Your task to perform on an android device: turn smart compose on in the gmail app Image 0: 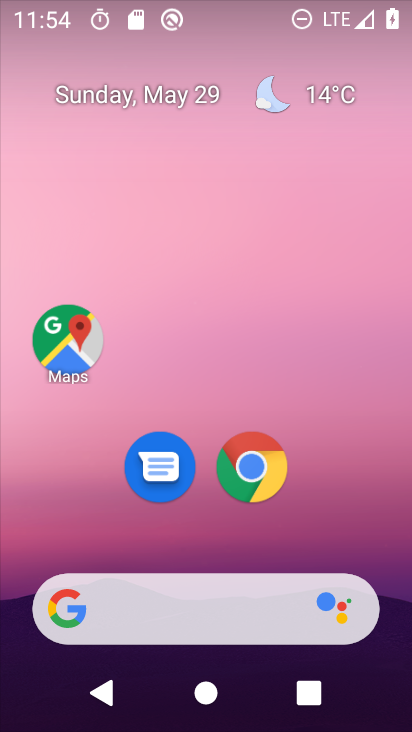
Step 0: drag from (188, 553) to (217, 138)
Your task to perform on an android device: turn smart compose on in the gmail app Image 1: 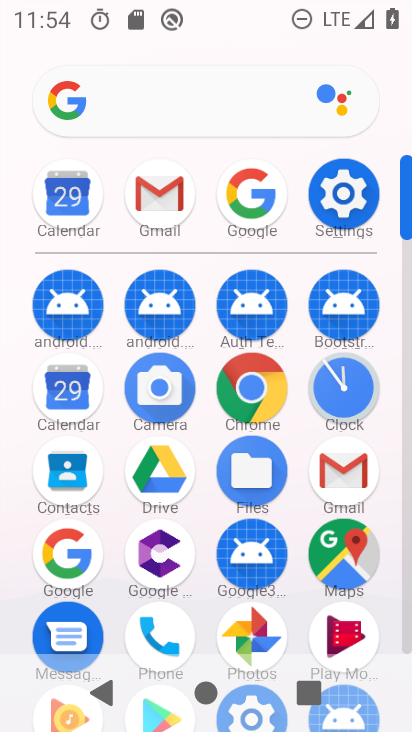
Step 1: click (170, 230)
Your task to perform on an android device: turn smart compose on in the gmail app Image 2: 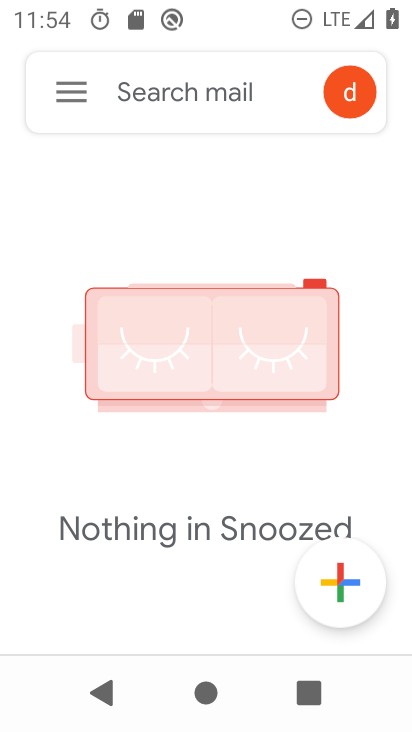
Step 2: click (71, 64)
Your task to perform on an android device: turn smart compose on in the gmail app Image 3: 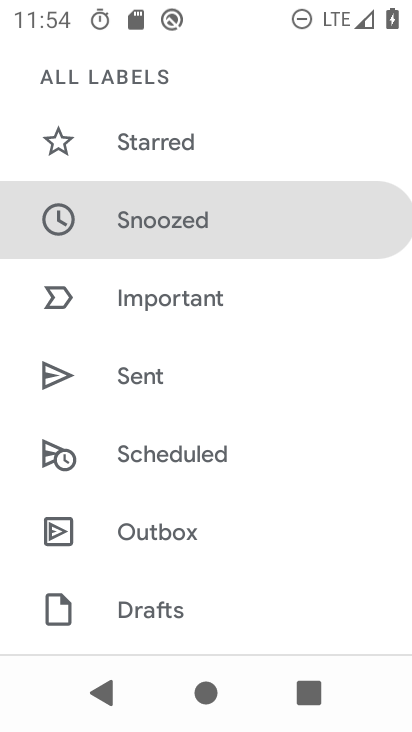
Step 3: drag from (133, 580) to (152, 180)
Your task to perform on an android device: turn smart compose on in the gmail app Image 4: 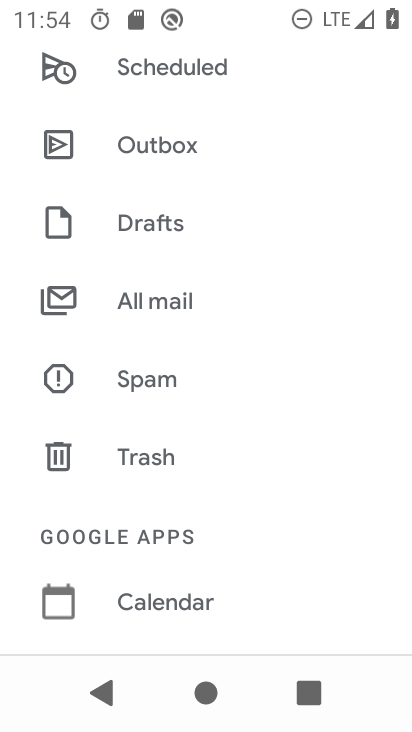
Step 4: drag from (237, 498) to (229, 206)
Your task to perform on an android device: turn smart compose on in the gmail app Image 5: 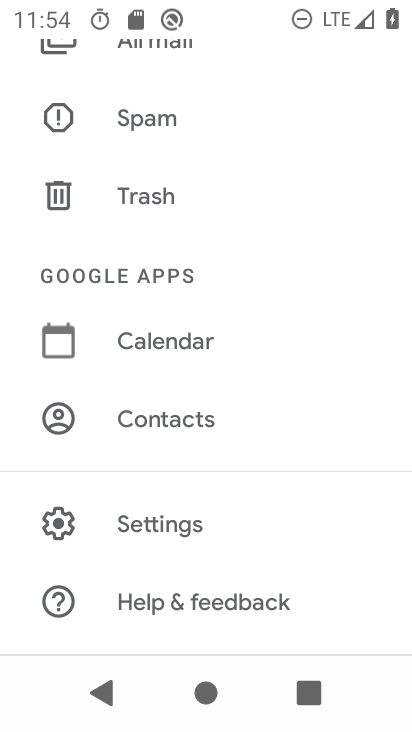
Step 5: click (162, 534)
Your task to perform on an android device: turn smart compose on in the gmail app Image 6: 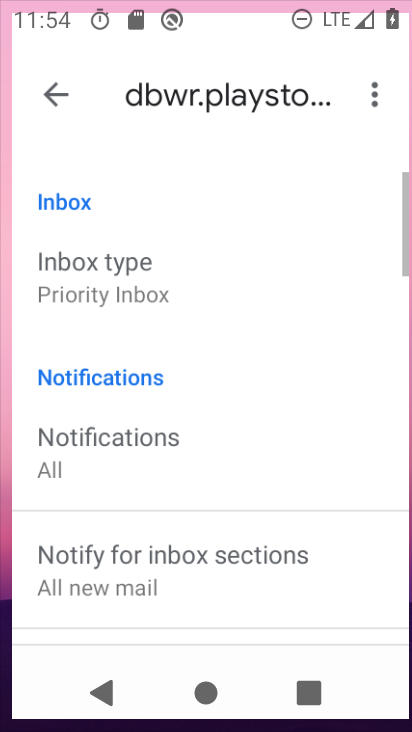
Step 6: task complete